Your task to perform on an android device: see tabs open on other devices in the chrome app Image 0: 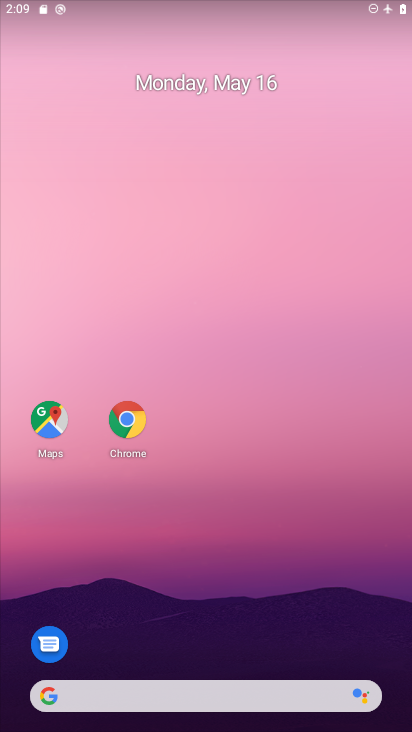
Step 0: click (282, 58)
Your task to perform on an android device: see tabs open on other devices in the chrome app Image 1: 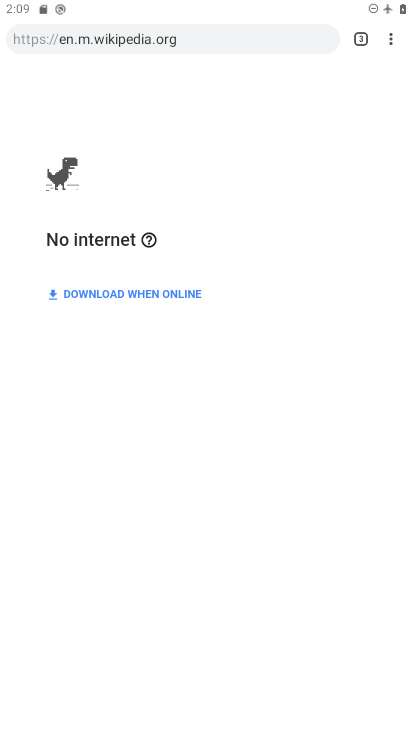
Step 1: press home button
Your task to perform on an android device: see tabs open on other devices in the chrome app Image 2: 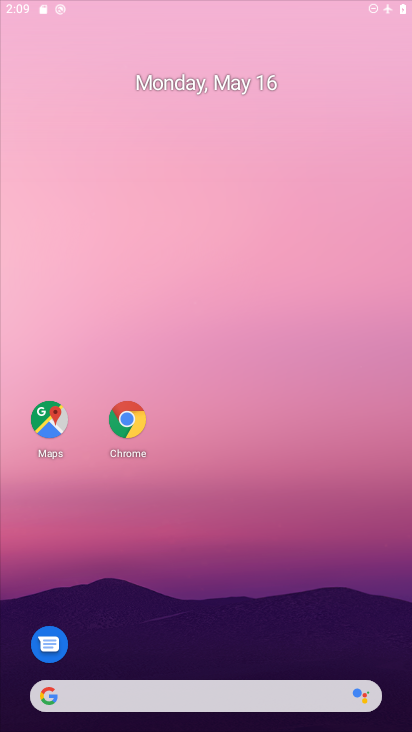
Step 2: drag from (253, 621) to (243, 25)
Your task to perform on an android device: see tabs open on other devices in the chrome app Image 3: 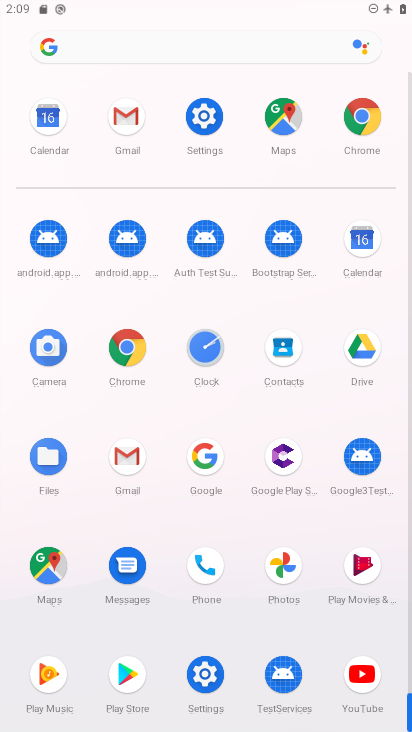
Step 3: click (121, 380)
Your task to perform on an android device: see tabs open on other devices in the chrome app Image 4: 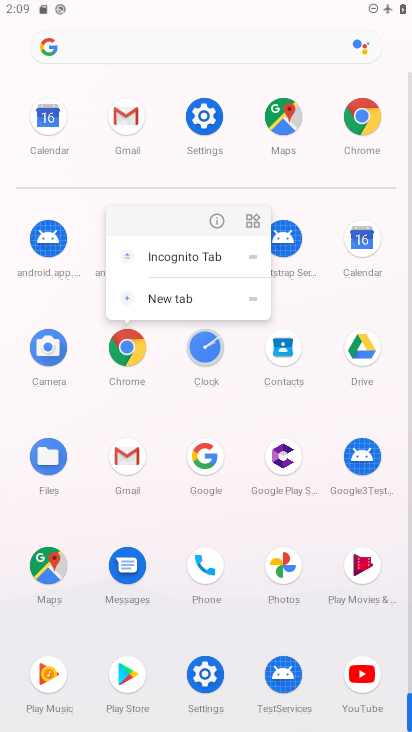
Step 4: click (210, 221)
Your task to perform on an android device: see tabs open on other devices in the chrome app Image 5: 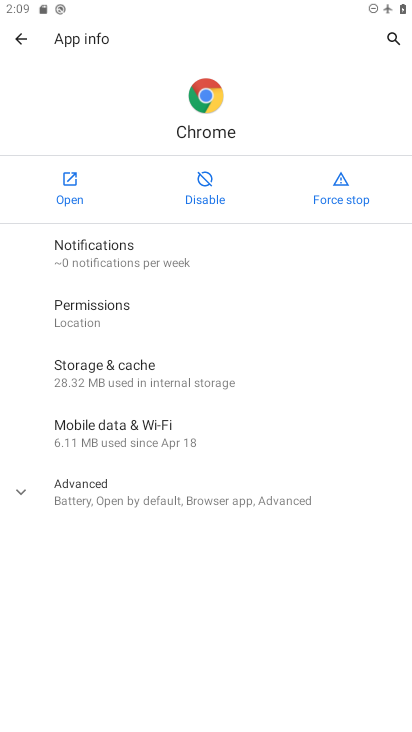
Step 5: click (70, 183)
Your task to perform on an android device: see tabs open on other devices in the chrome app Image 6: 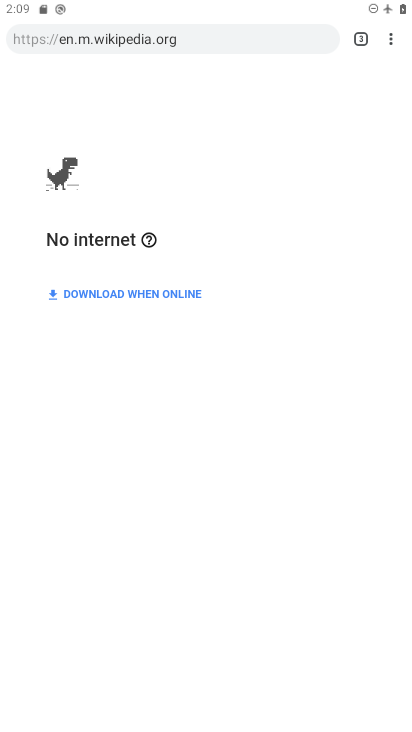
Step 6: click (402, 37)
Your task to perform on an android device: see tabs open on other devices in the chrome app Image 7: 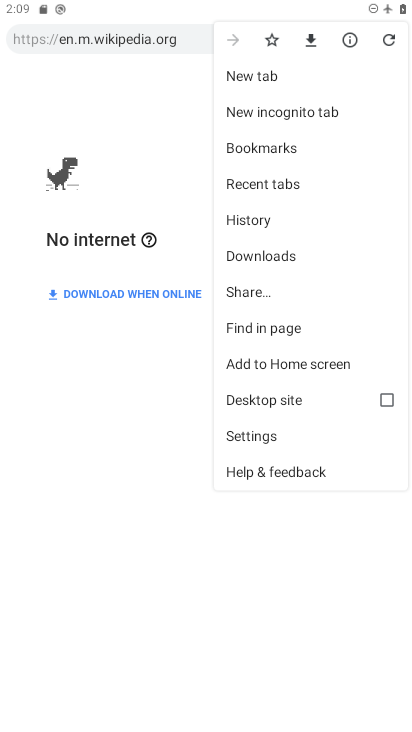
Step 7: click (286, 436)
Your task to perform on an android device: see tabs open on other devices in the chrome app Image 8: 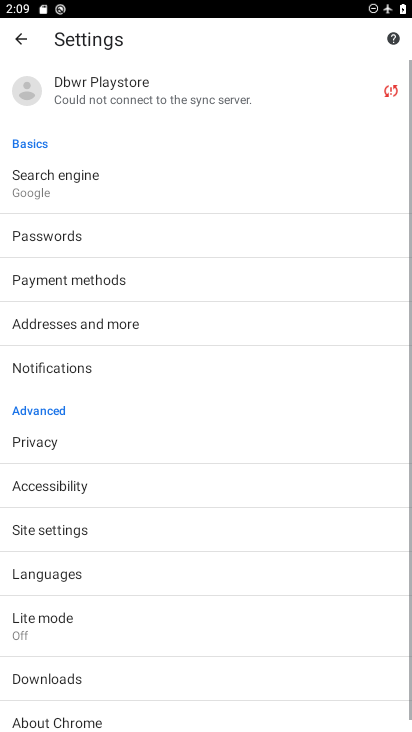
Step 8: drag from (193, 409) to (283, 33)
Your task to perform on an android device: see tabs open on other devices in the chrome app Image 9: 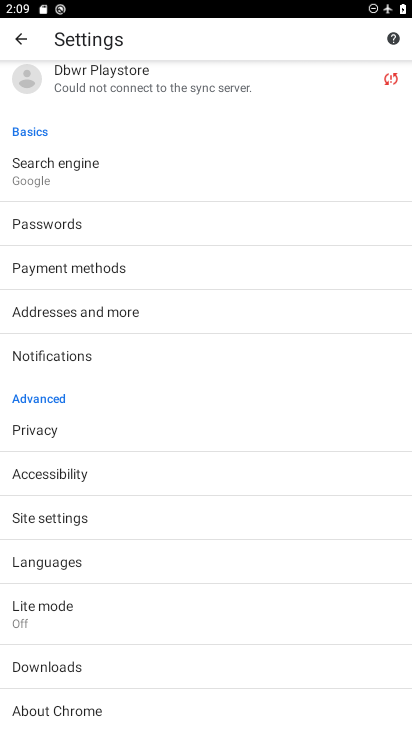
Step 9: drag from (127, 226) to (199, 657)
Your task to perform on an android device: see tabs open on other devices in the chrome app Image 10: 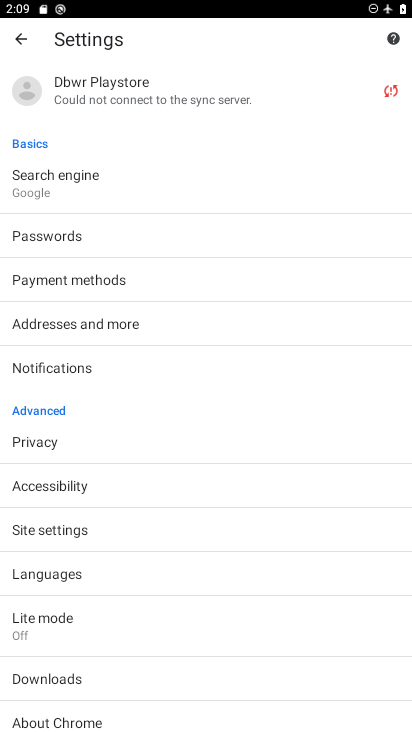
Step 10: click (31, 38)
Your task to perform on an android device: see tabs open on other devices in the chrome app Image 11: 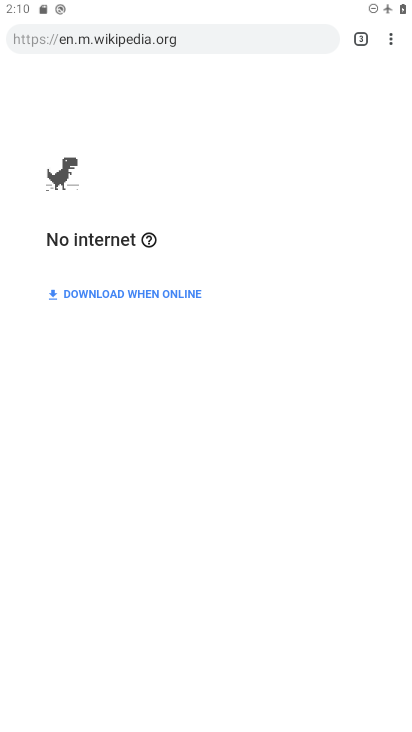
Step 11: click (394, 40)
Your task to perform on an android device: see tabs open on other devices in the chrome app Image 12: 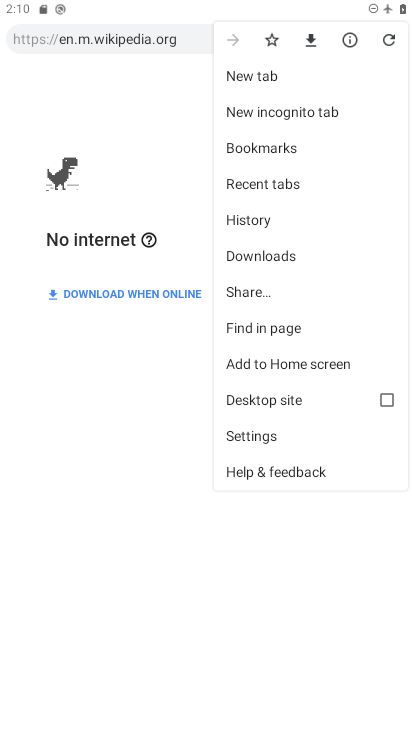
Step 12: click (290, 190)
Your task to perform on an android device: see tabs open on other devices in the chrome app Image 13: 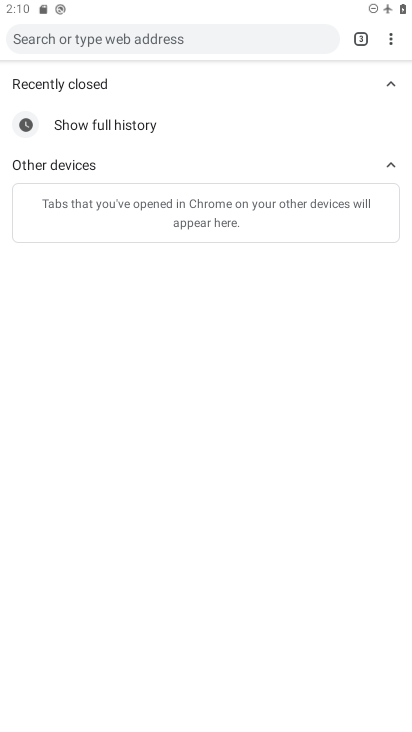
Step 13: task complete